Your task to perform on an android device: move an email to a new category in the gmail app Image 0: 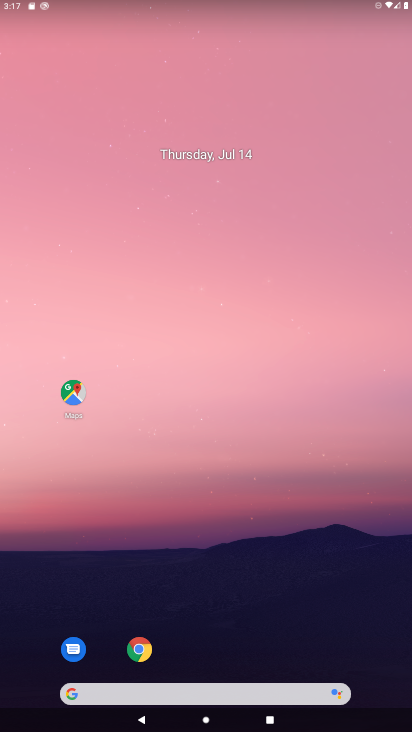
Step 0: drag from (236, 604) to (254, 216)
Your task to perform on an android device: move an email to a new category in the gmail app Image 1: 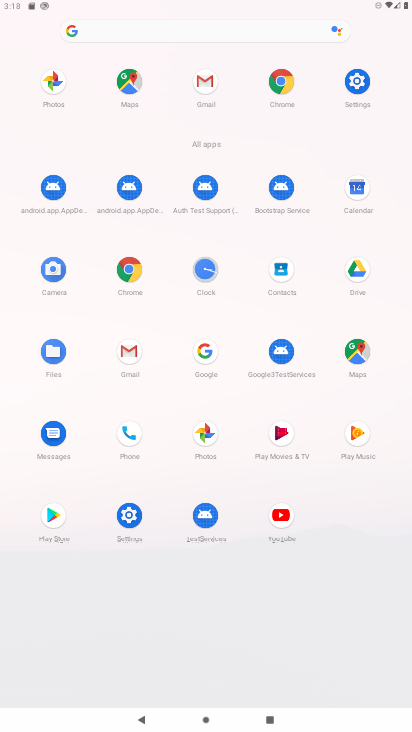
Step 1: click (122, 351)
Your task to perform on an android device: move an email to a new category in the gmail app Image 2: 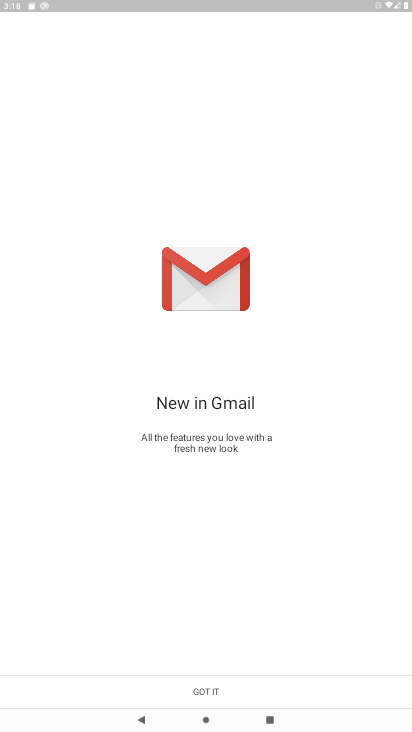
Step 2: click (131, 349)
Your task to perform on an android device: move an email to a new category in the gmail app Image 3: 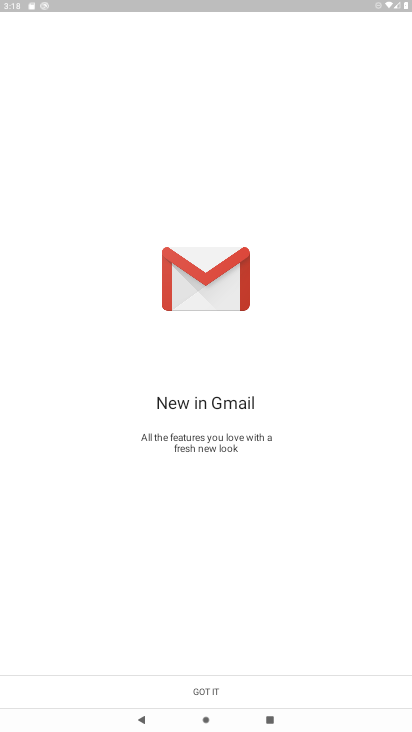
Step 3: click (204, 683)
Your task to perform on an android device: move an email to a new category in the gmail app Image 4: 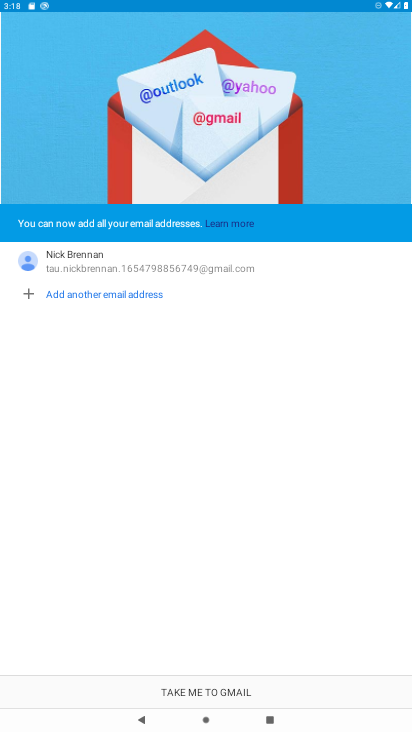
Step 4: click (185, 689)
Your task to perform on an android device: move an email to a new category in the gmail app Image 5: 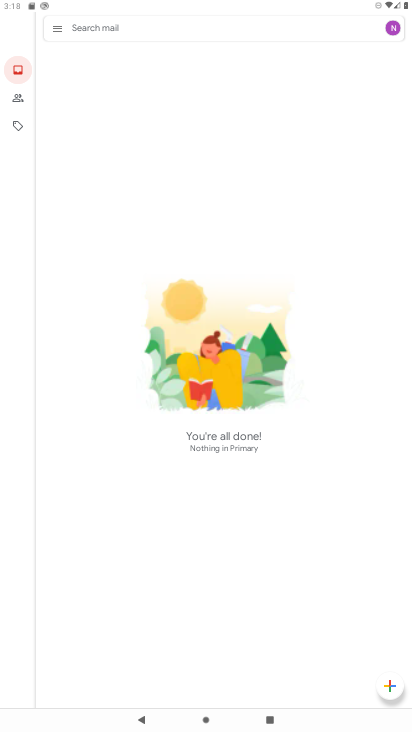
Step 5: click (46, 21)
Your task to perform on an android device: move an email to a new category in the gmail app Image 6: 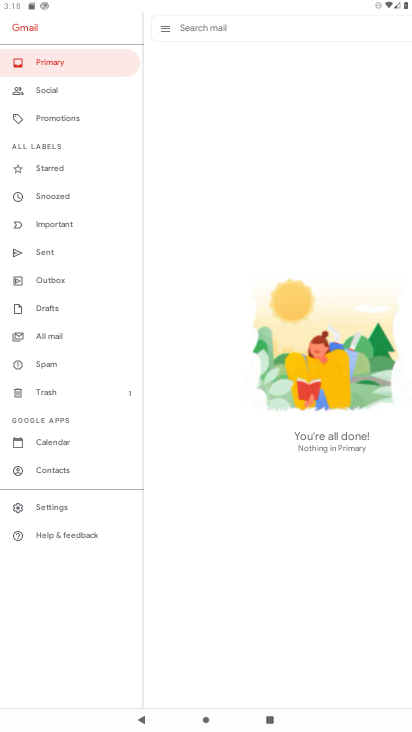
Step 6: click (53, 326)
Your task to perform on an android device: move an email to a new category in the gmail app Image 7: 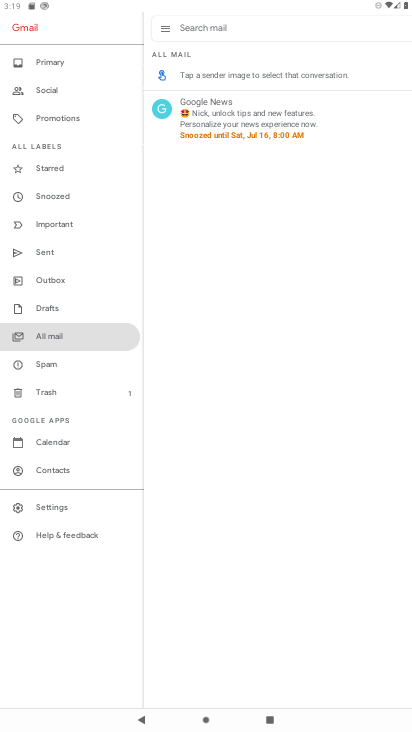
Step 7: click (237, 110)
Your task to perform on an android device: move an email to a new category in the gmail app Image 8: 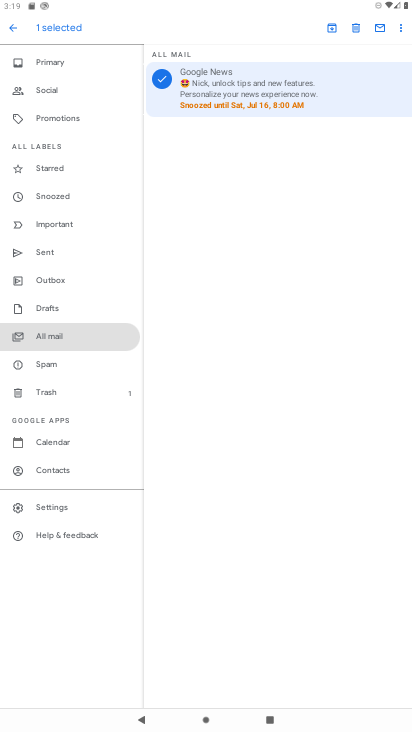
Step 8: click (396, 22)
Your task to perform on an android device: move an email to a new category in the gmail app Image 9: 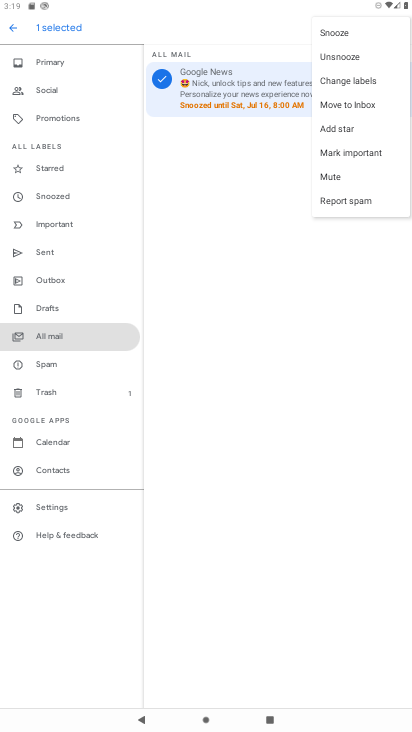
Step 9: click (351, 102)
Your task to perform on an android device: move an email to a new category in the gmail app Image 10: 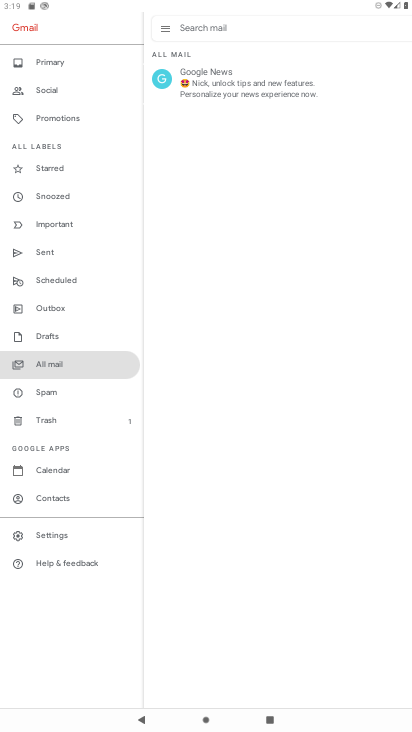
Step 10: task complete